Your task to perform on an android device: Open Google Image 0: 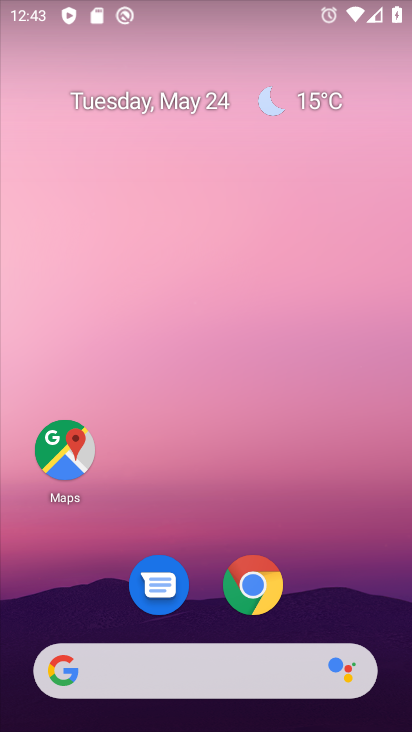
Step 0: click (212, 671)
Your task to perform on an android device: Open Google Image 1: 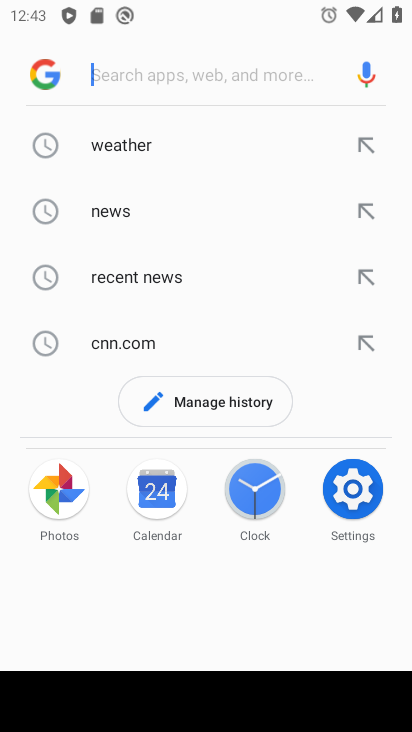
Step 1: click (40, 75)
Your task to perform on an android device: Open Google Image 2: 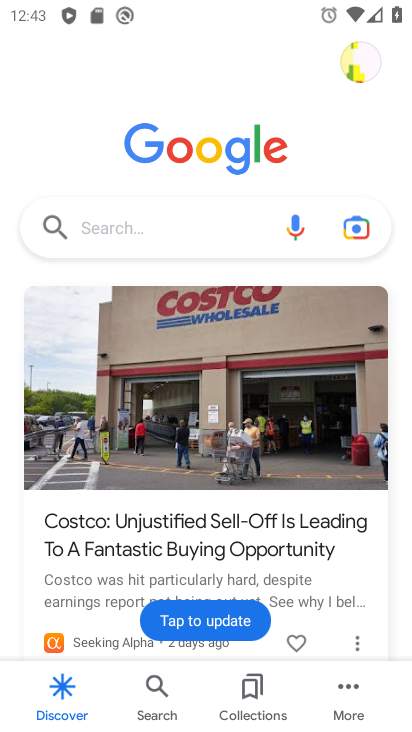
Step 2: task complete